Your task to perform on an android device: change the clock display to show seconds Image 0: 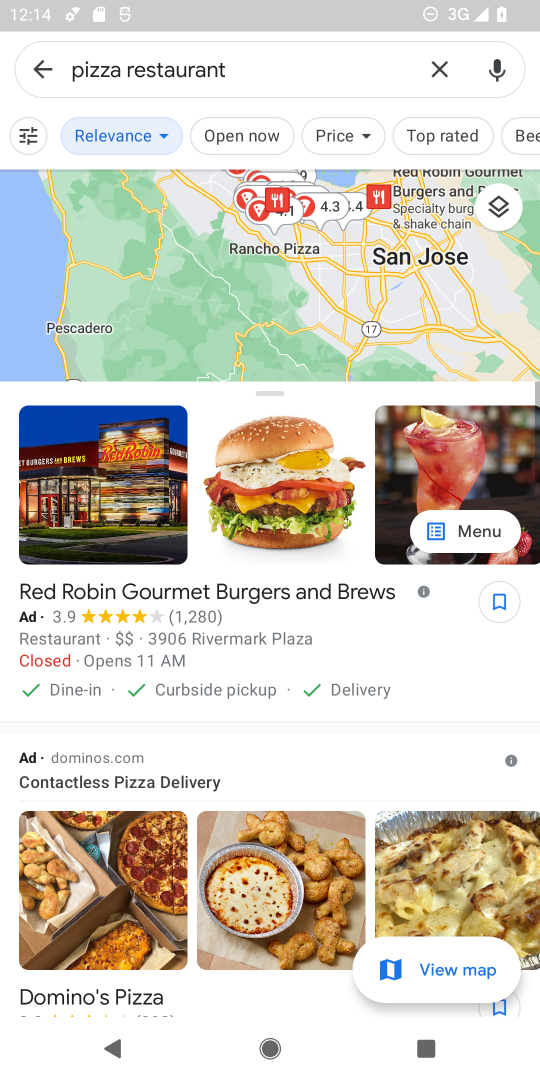
Step 0: press home button
Your task to perform on an android device: change the clock display to show seconds Image 1: 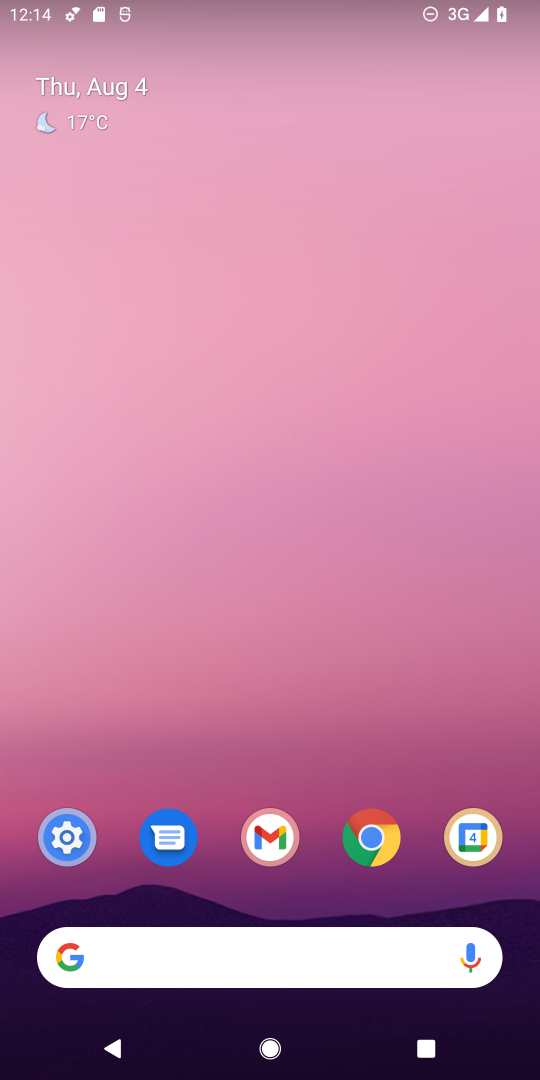
Step 1: drag from (488, 933) to (346, 86)
Your task to perform on an android device: change the clock display to show seconds Image 2: 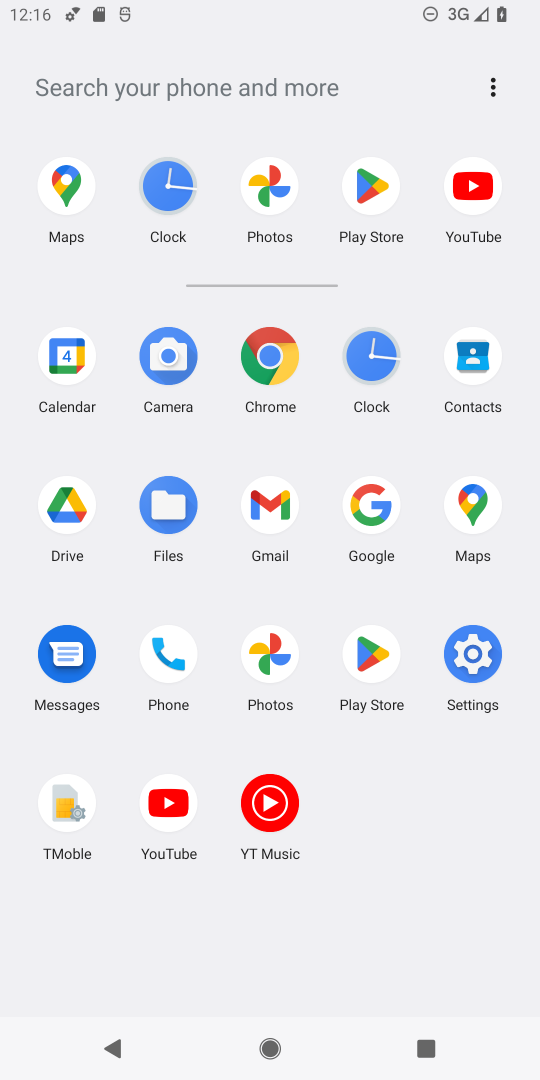
Step 2: click (362, 378)
Your task to perform on an android device: change the clock display to show seconds Image 3: 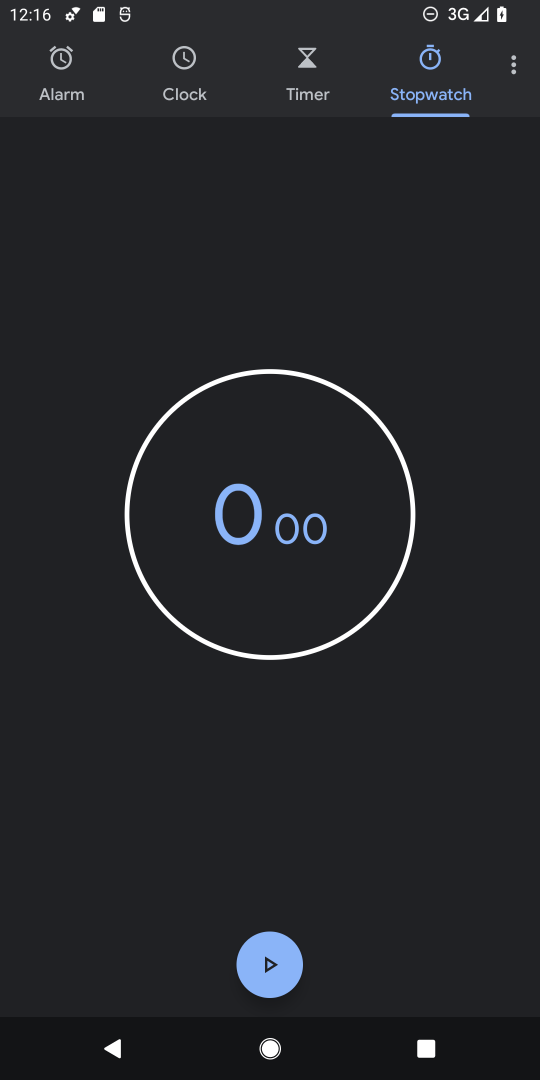
Step 3: click (539, 24)
Your task to perform on an android device: change the clock display to show seconds Image 4: 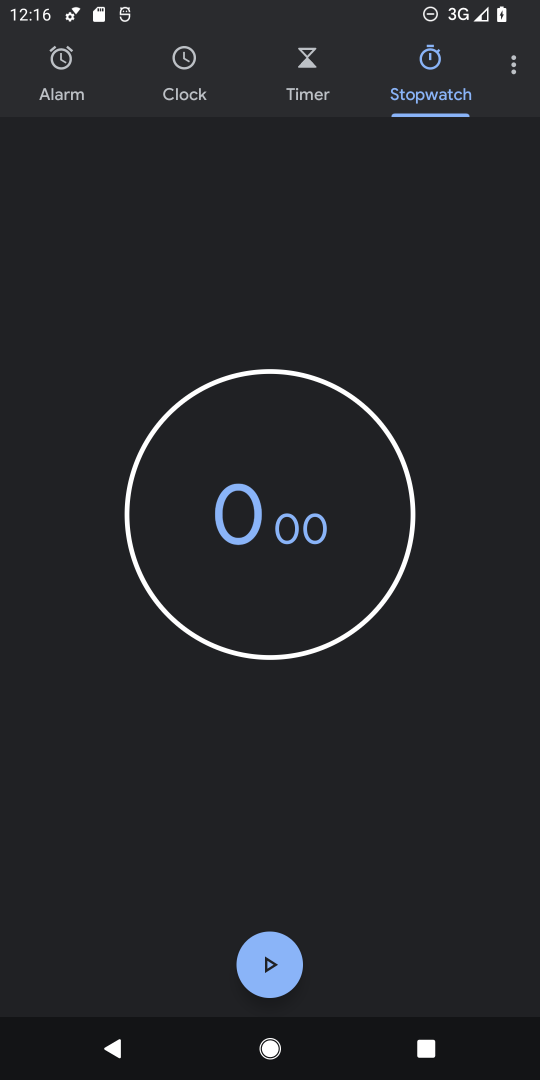
Step 4: click (513, 66)
Your task to perform on an android device: change the clock display to show seconds Image 5: 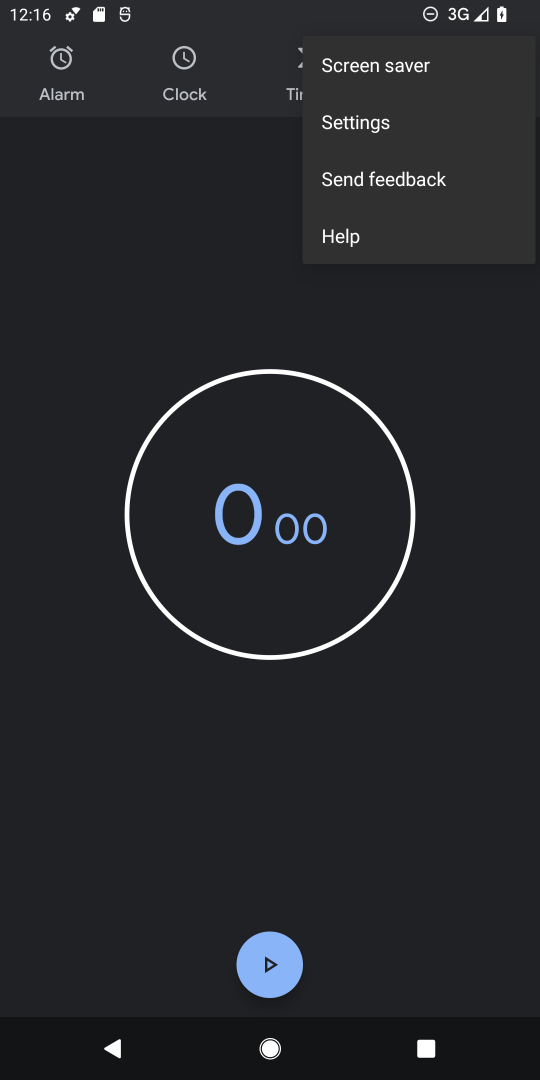
Step 5: click (374, 131)
Your task to perform on an android device: change the clock display to show seconds Image 6: 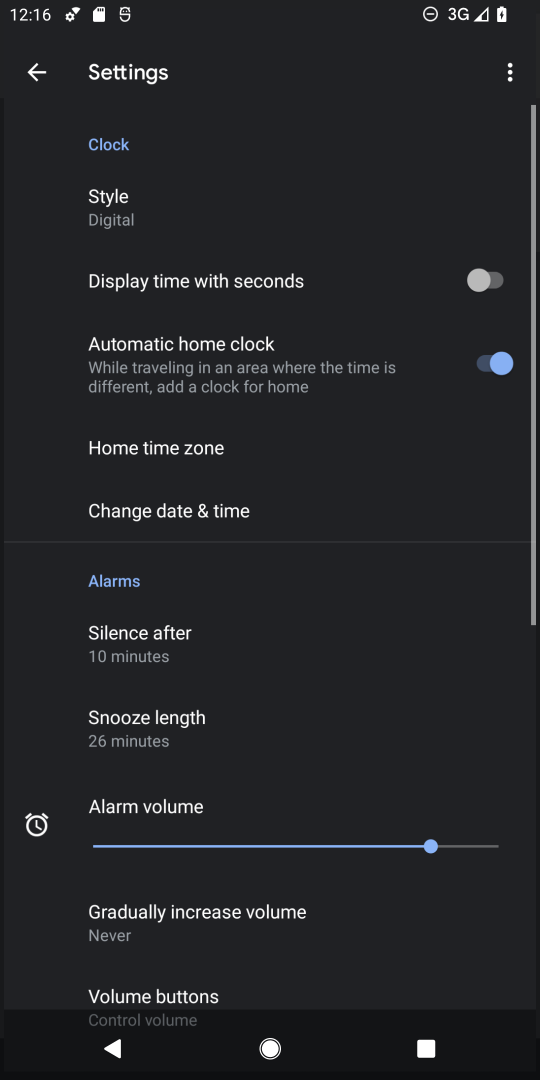
Step 6: click (480, 276)
Your task to perform on an android device: change the clock display to show seconds Image 7: 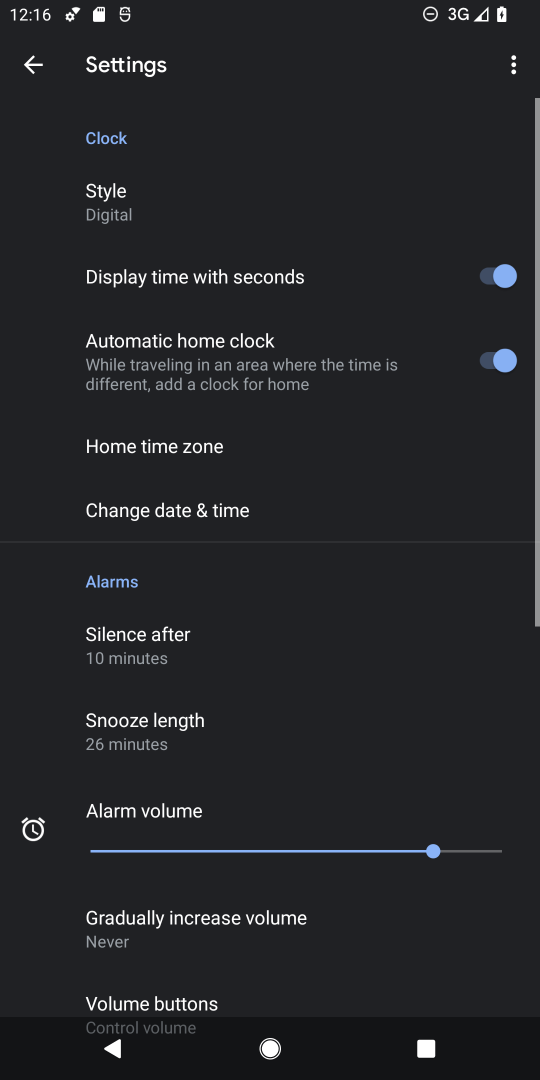
Step 7: task complete